Your task to perform on an android device: Open Android settings Image 0: 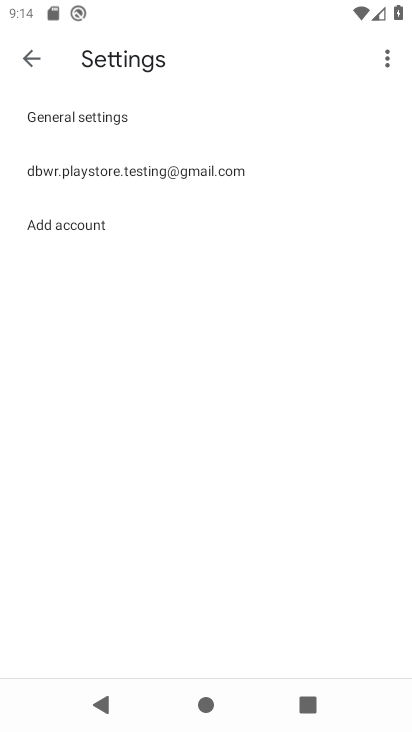
Step 0: press back button
Your task to perform on an android device: Open Android settings Image 1: 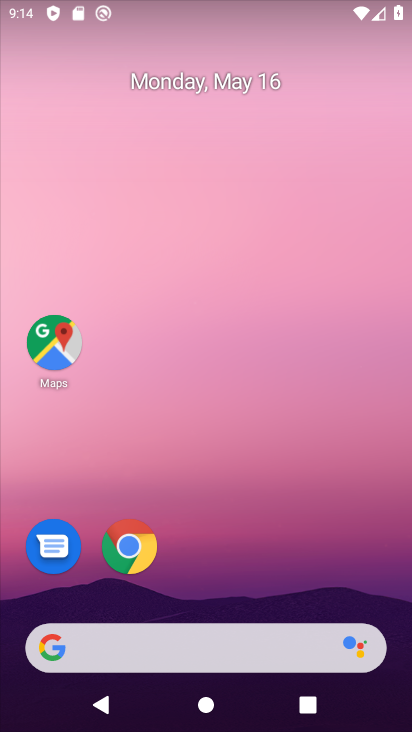
Step 1: drag from (294, 556) to (260, 107)
Your task to perform on an android device: Open Android settings Image 2: 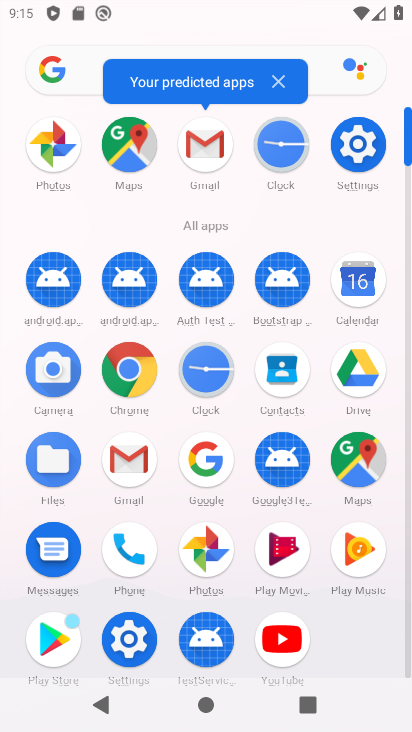
Step 2: click (358, 143)
Your task to perform on an android device: Open Android settings Image 3: 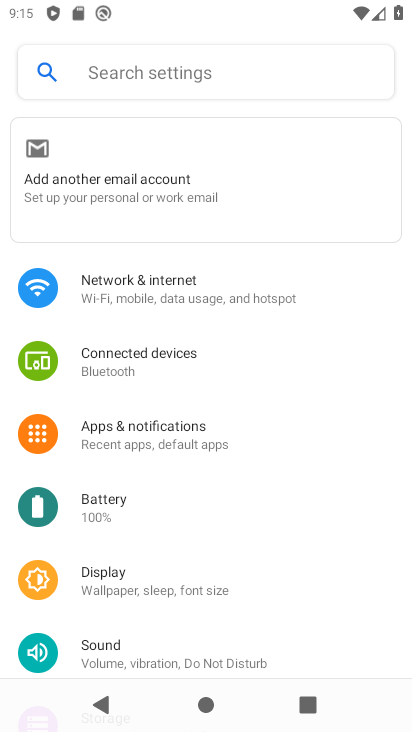
Step 3: task complete